Your task to perform on an android device: change the clock style Image 0: 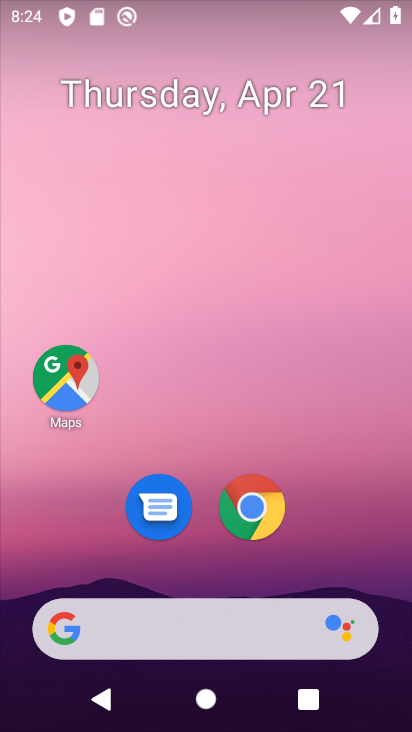
Step 0: drag from (347, 519) to (330, 144)
Your task to perform on an android device: change the clock style Image 1: 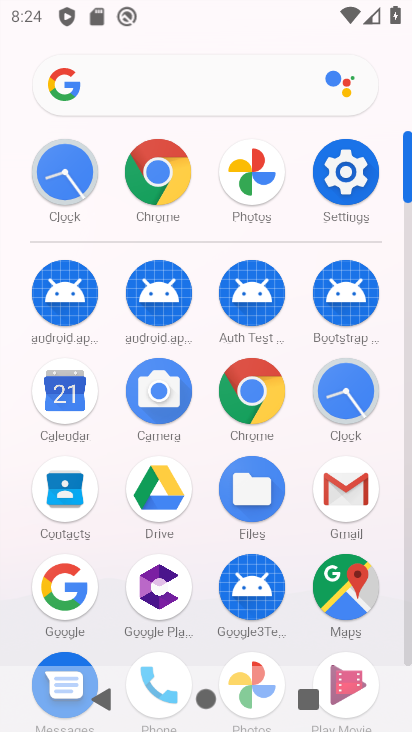
Step 1: click (340, 398)
Your task to perform on an android device: change the clock style Image 2: 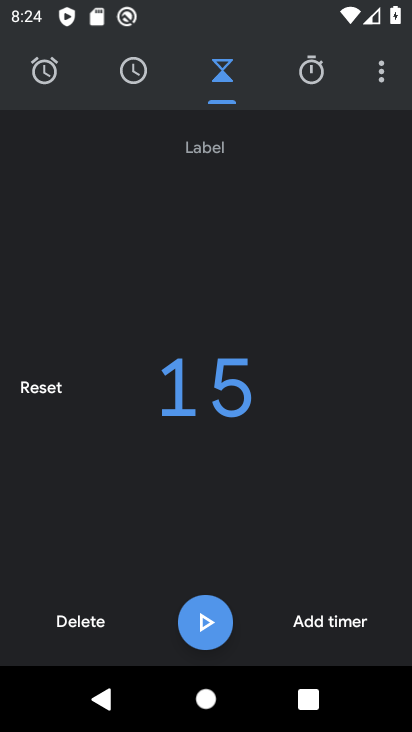
Step 2: click (373, 80)
Your task to perform on an android device: change the clock style Image 3: 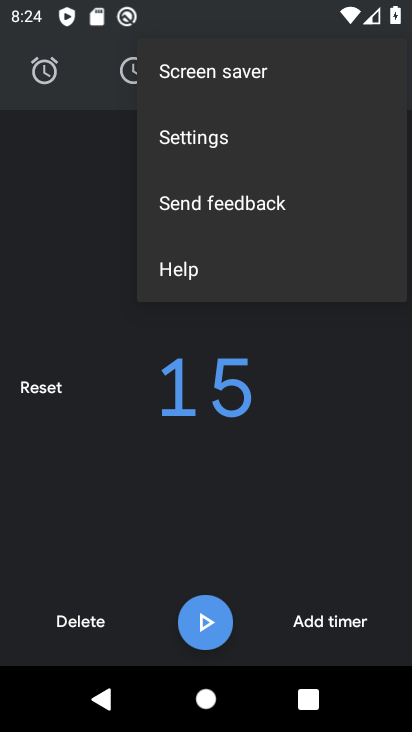
Step 3: click (229, 130)
Your task to perform on an android device: change the clock style Image 4: 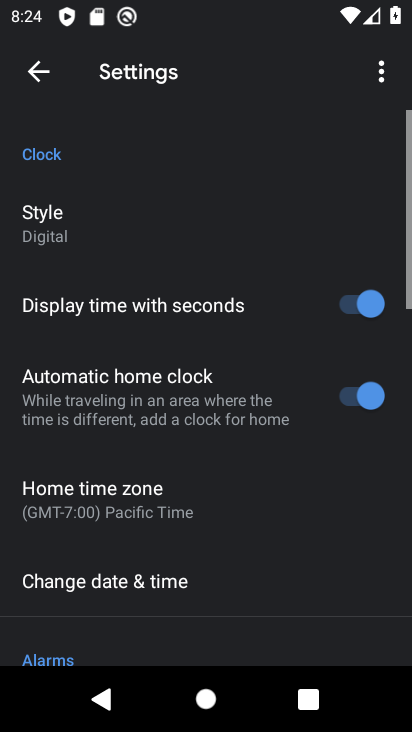
Step 4: click (44, 213)
Your task to perform on an android device: change the clock style Image 5: 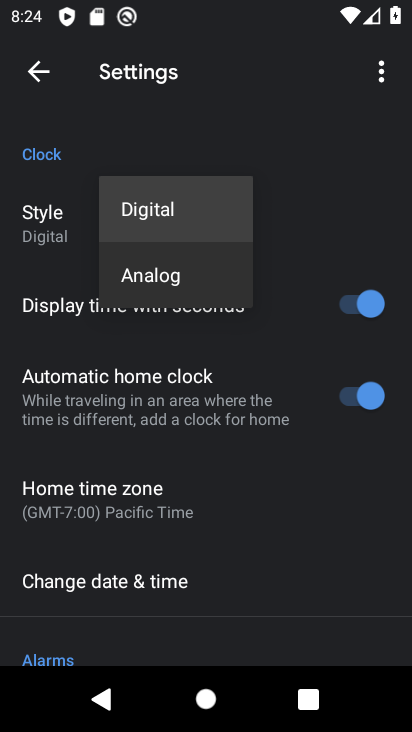
Step 5: click (124, 271)
Your task to perform on an android device: change the clock style Image 6: 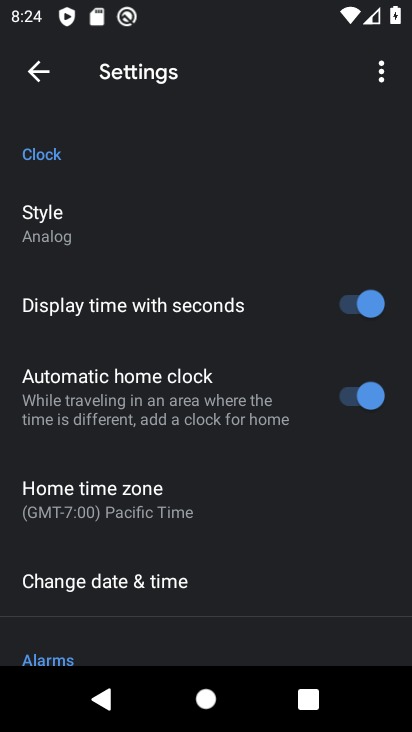
Step 6: task complete